Your task to perform on an android device: Go to notification settings Image 0: 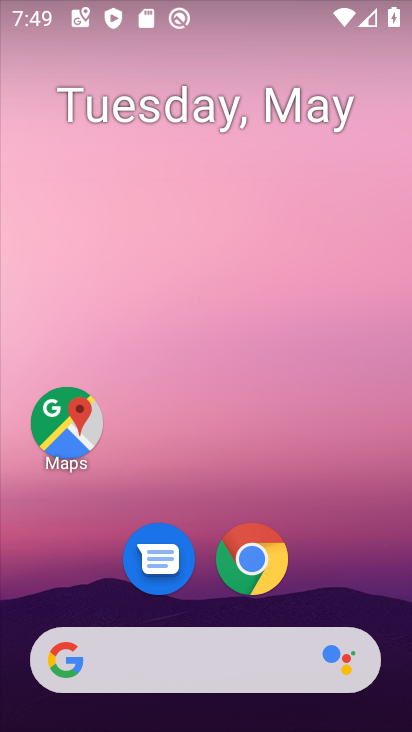
Step 0: drag from (381, 572) to (409, 114)
Your task to perform on an android device: Go to notification settings Image 1: 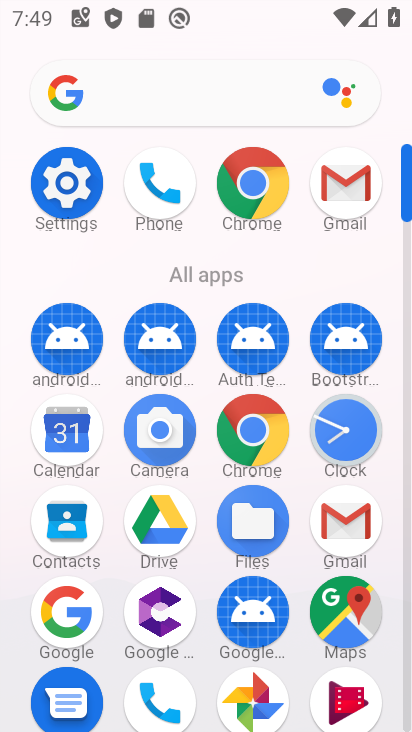
Step 1: click (75, 176)
Your task to perform on an android device: Go to notification settings Image 2: 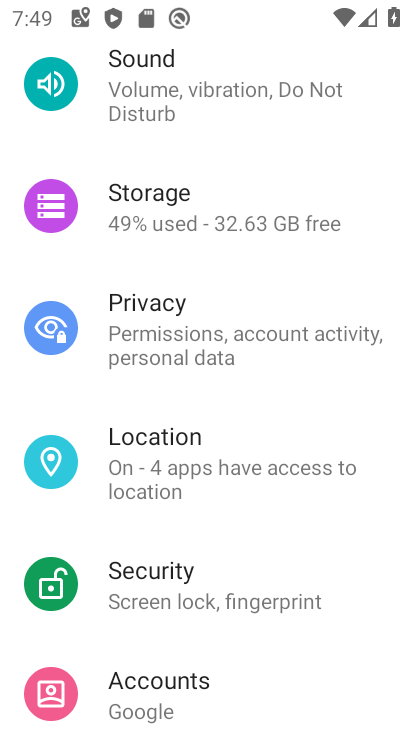
Step 2: drag from (234, 242) to (334, 640)
Your task to perform on an android device: Go to notification settings Image 3: 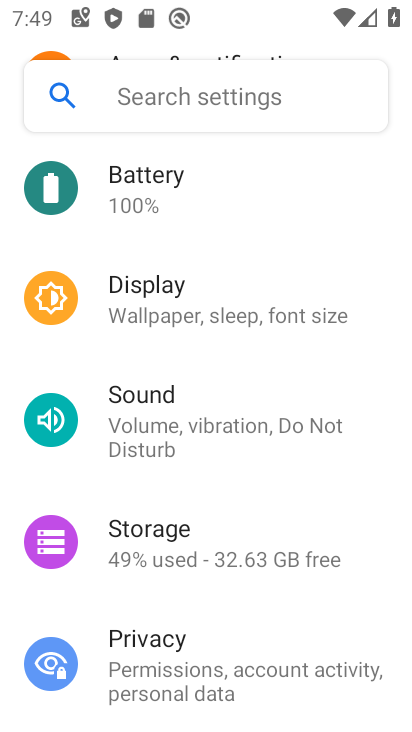
Step 3: drag from (290, 254) to (387, 657)
Your task to perform on an android device: Go to notification settings Image 4: 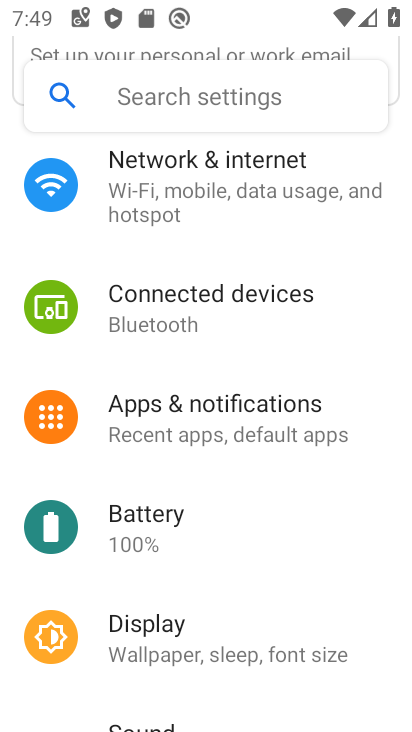
Step 4: drag from (364, 297) to (409, 597)
Your task to perform on an android device: Go to notification settings Image 5: 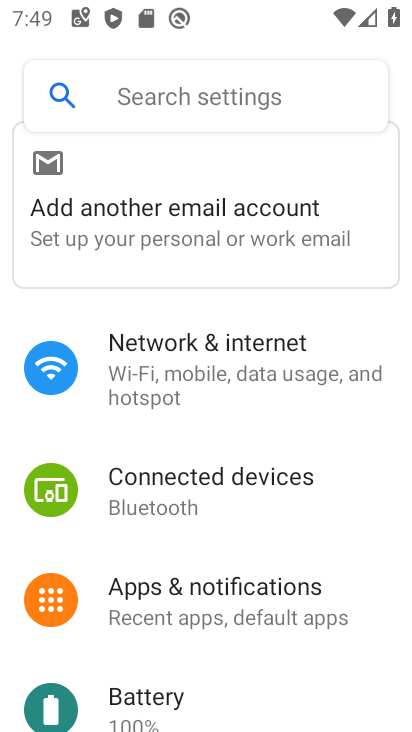
Step 5: click (259, 582)
Your task to perform on an android device: Go to notification settings Image 6: 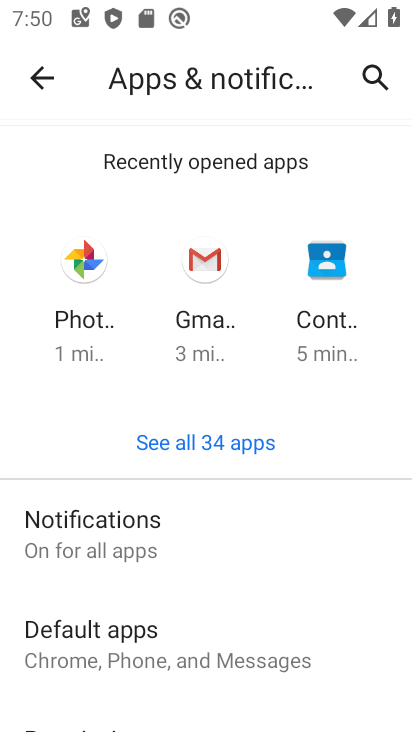
Step 6: click (90, 539)
Your task to perform on an android device: Go to notification settings Image 7: 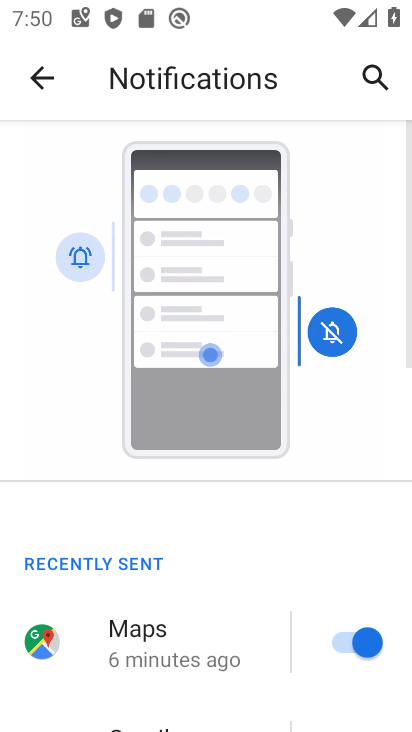
Step 7: task complete